Your task to perform on an android device: toggle data saver in the chrome app Image 0: 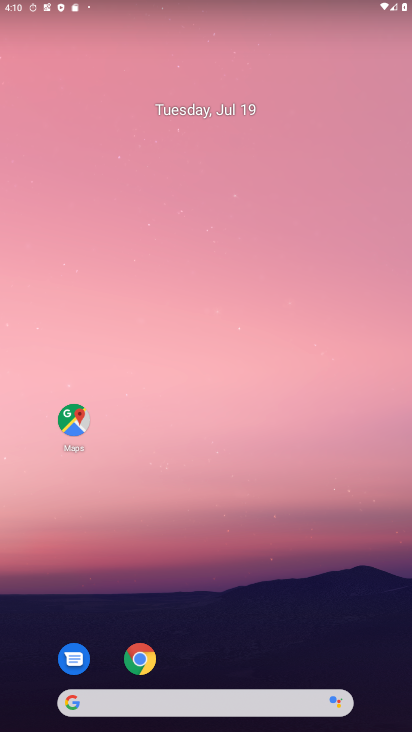
Step 0: drag from (333, 582) to (409, 182)
Your task to perform on an android device: toggle data saver in the chrome app Image 1: 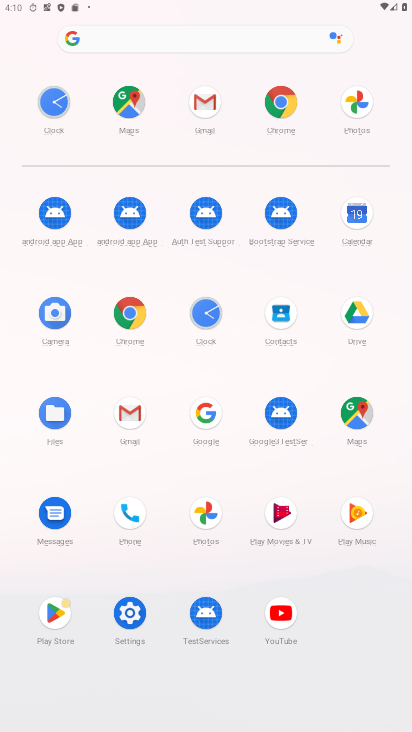
Step 1: click (283, 112)
Your task to perform on an android device: toggle data saver in the chrome app Image 2: 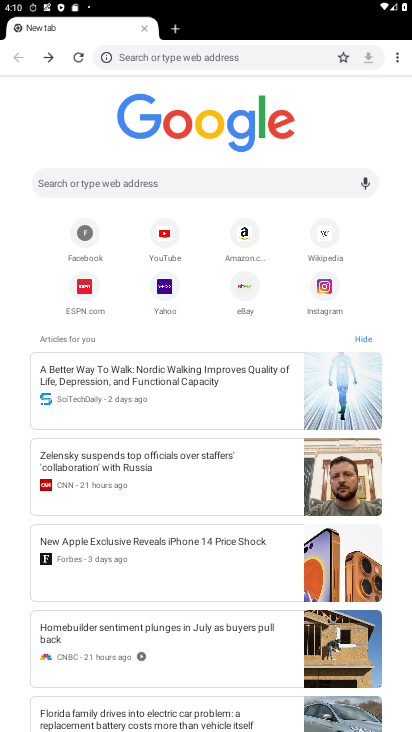
Step 2: drag from (401, 64) to (280, 276)
Your task to perform on an android device: toggle data saver in the chrome app Image 3: 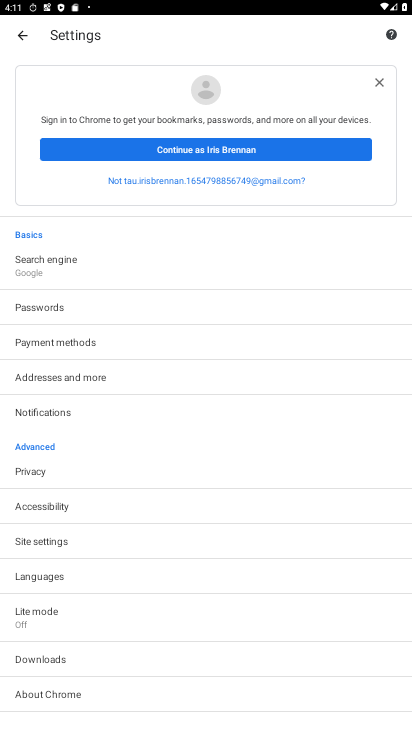
Step 3: drag from (201, 601) to (151, 169)
Your task to perform on an android device: toggle data saver in the chrome app Image 4: 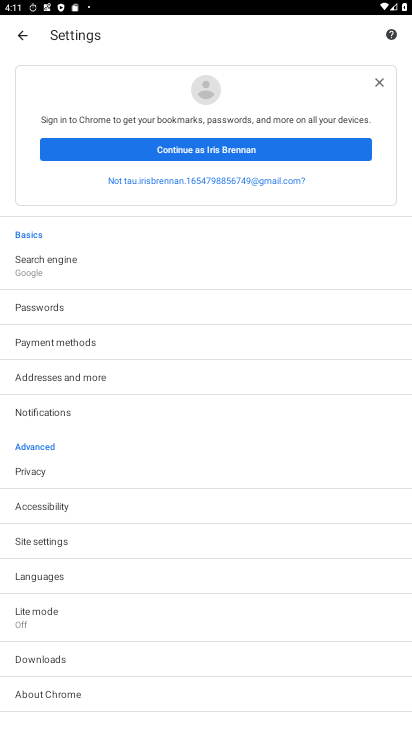
Step 4: drag from (156, 584) to (195, 159)
Your task to perform on an android device: toggle data saver in the chrome app Image 5: 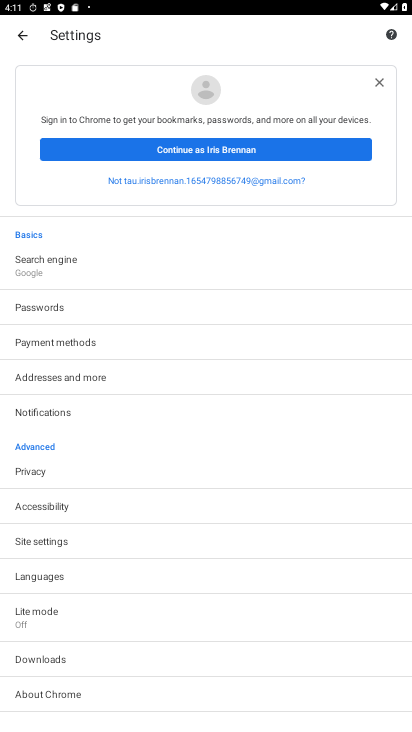
Step 5: click (58, 621)
Your task to perform on an android device: toggle data saver in the chrome app Image 6: 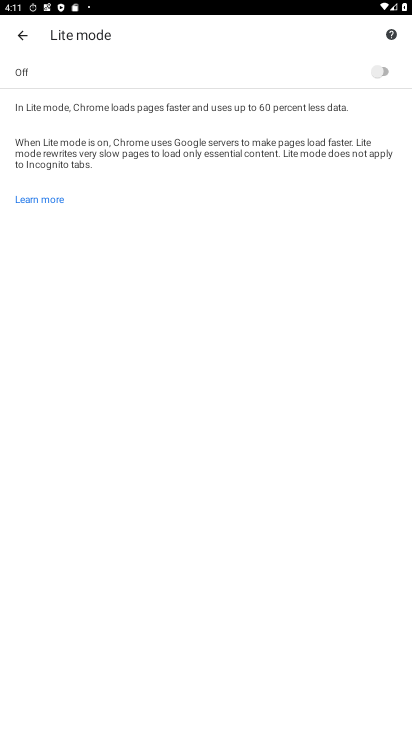
Step 6: click (376, 66)
Your task to perform on an android device: toggle data saver in the chrome app Image 7: 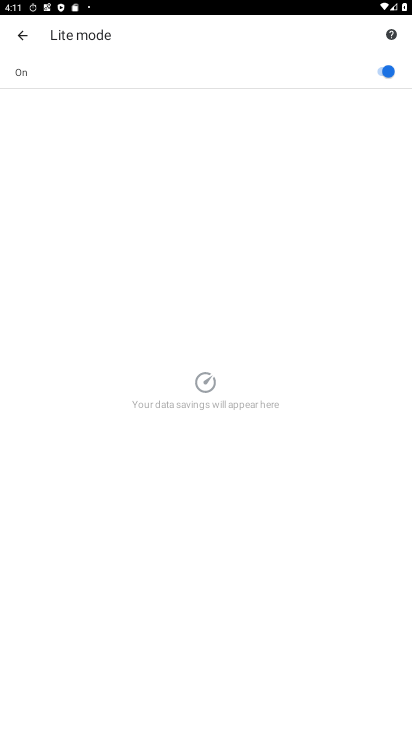
Step 7: task complete